Your task to perform on an android device: Open accessibility settings Image 0: 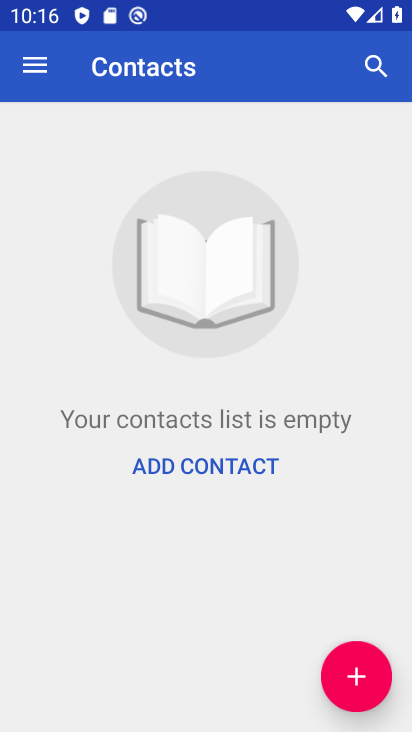
Step 0: press home button
Your task to perform on an android device: Open accessibility settings Image 1: 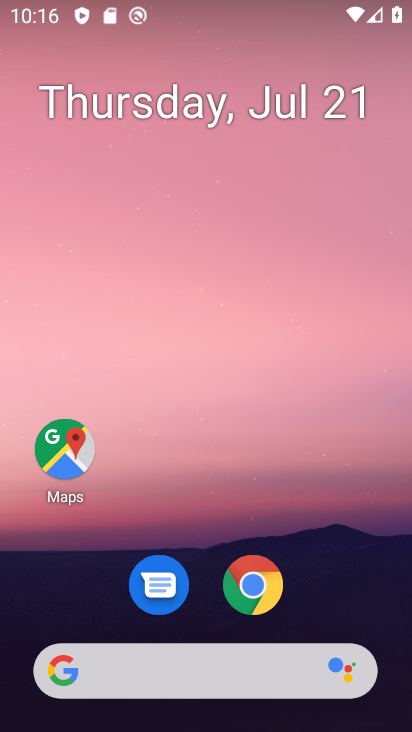
Step 1: drag from (185, 663) to (301, 64)
Your task to perform on an android device: Open accessibility settings Image 2: 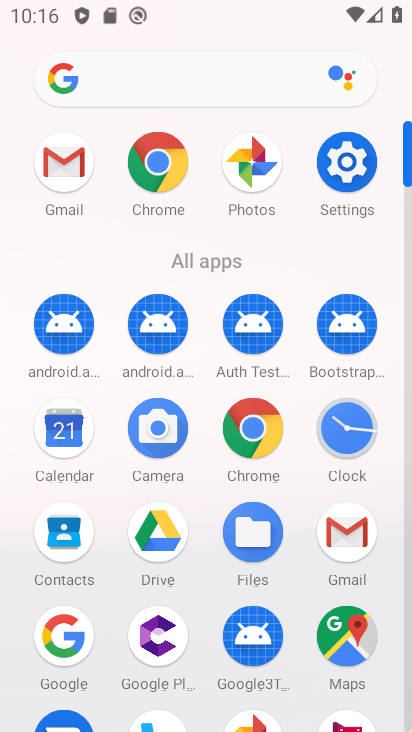
Step 2: click (355, 154)
Your task to perform on an android device: Open accessibility settings Image 3: 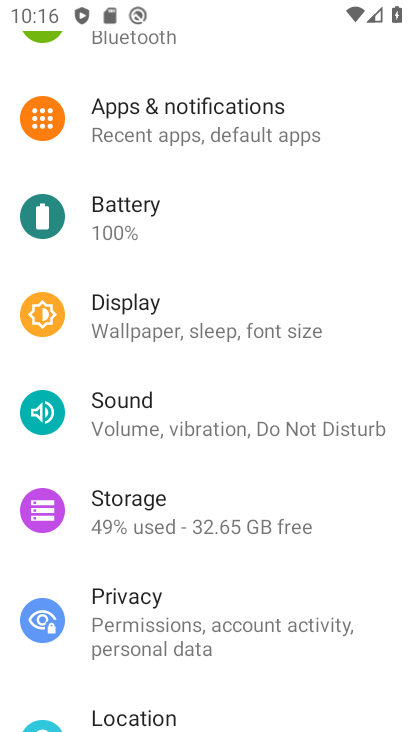
Step 3: drag from (256, 669) to (353, 36)
Your task to perform on an android device: Open accessibility settings Image 4: 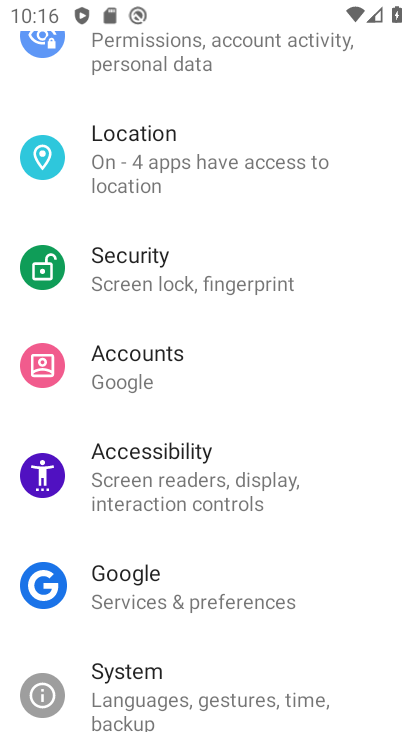
Step 4: click (170, 476)
Your task to perform on an android device: Open accessibility settings Image 5: 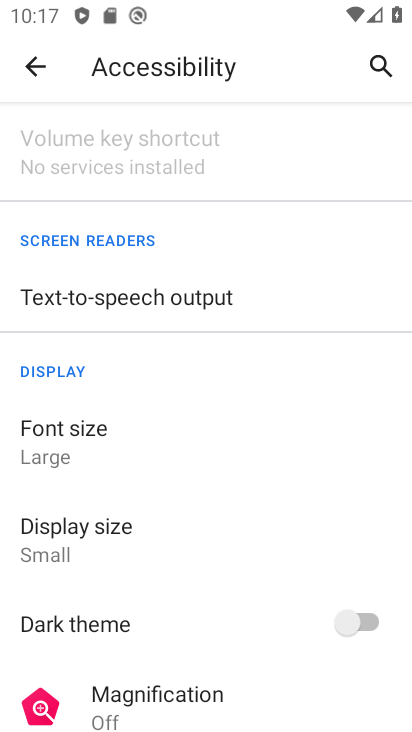
Step 5: task complete